Your task to perform on an android device: turn pop-ups off in chrome Image 0: 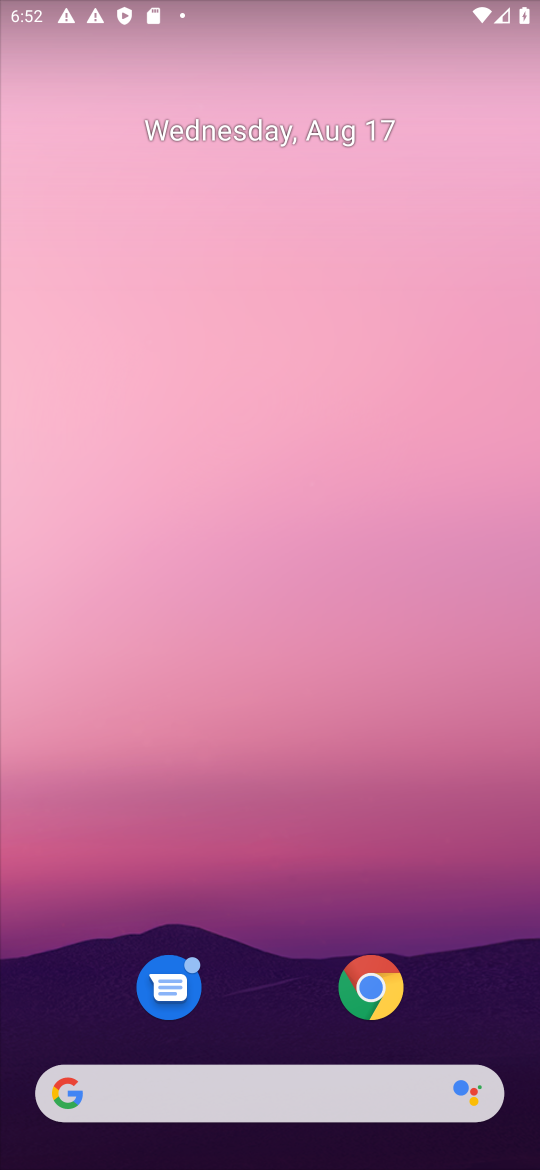
Step 0: drag from (250, 988) to (167, 3)
Your task to perform on an android device: turn pop-ups off in chrome Image 1: 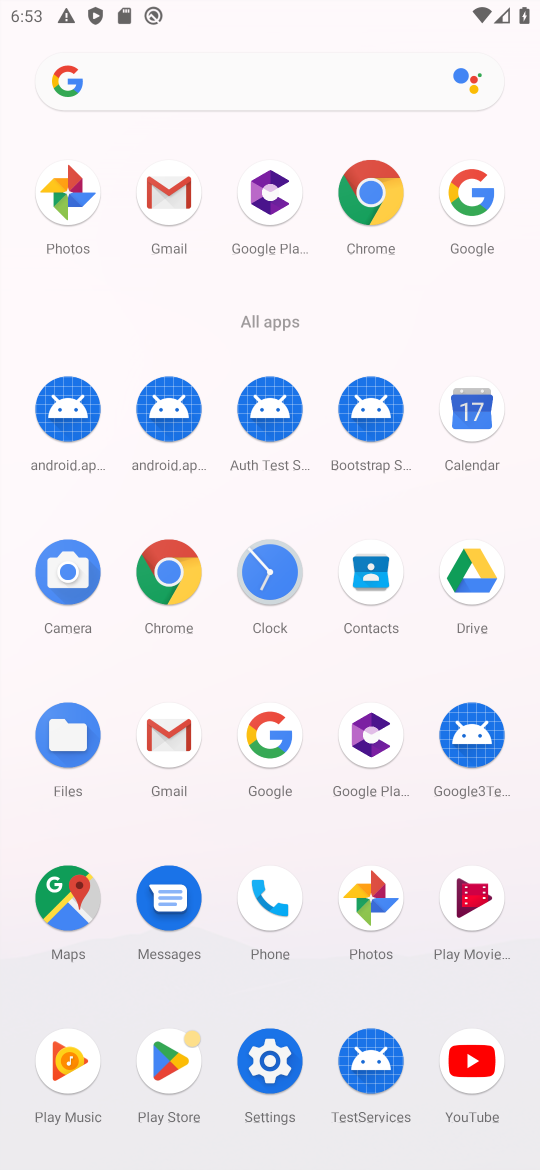
Step 1: click (167, 590)
Your task to perform on an android device: turn pop-ups off in chrome Image 2: 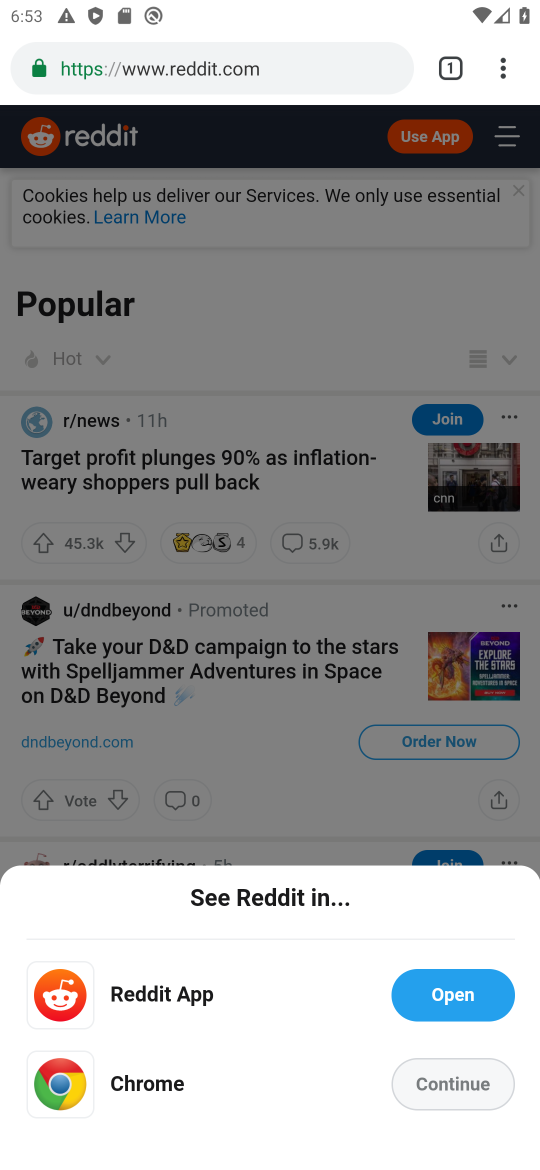
Step 2: click (495, 67)
Your task to perform on an android device: turn pop-ups off in chrome Image 3: 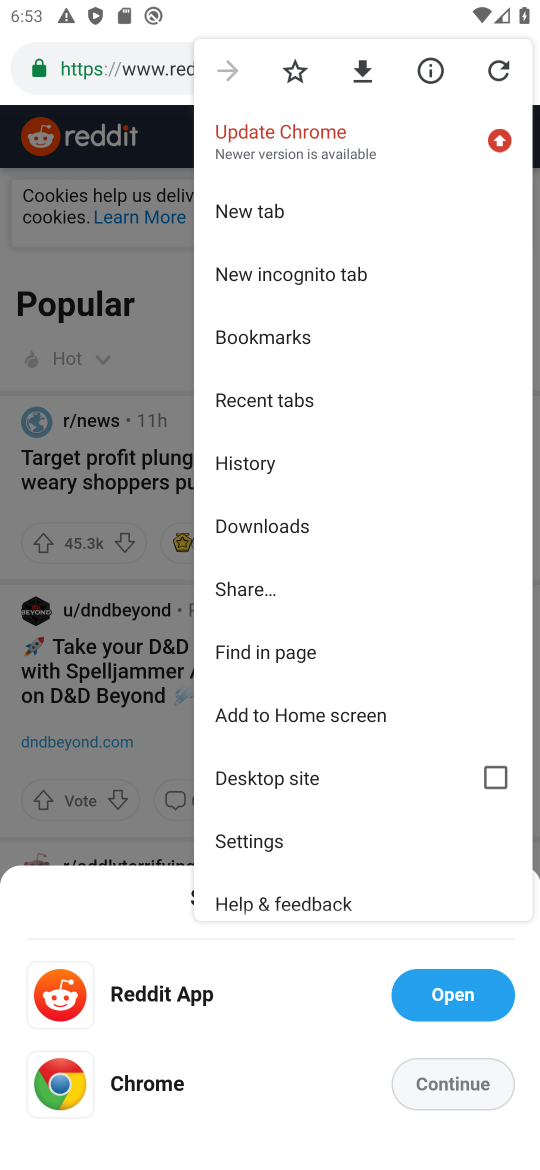
Step 3: click (273, 840)
Your task to perform on an android device: turn pop-ups off in chrome Image 4: 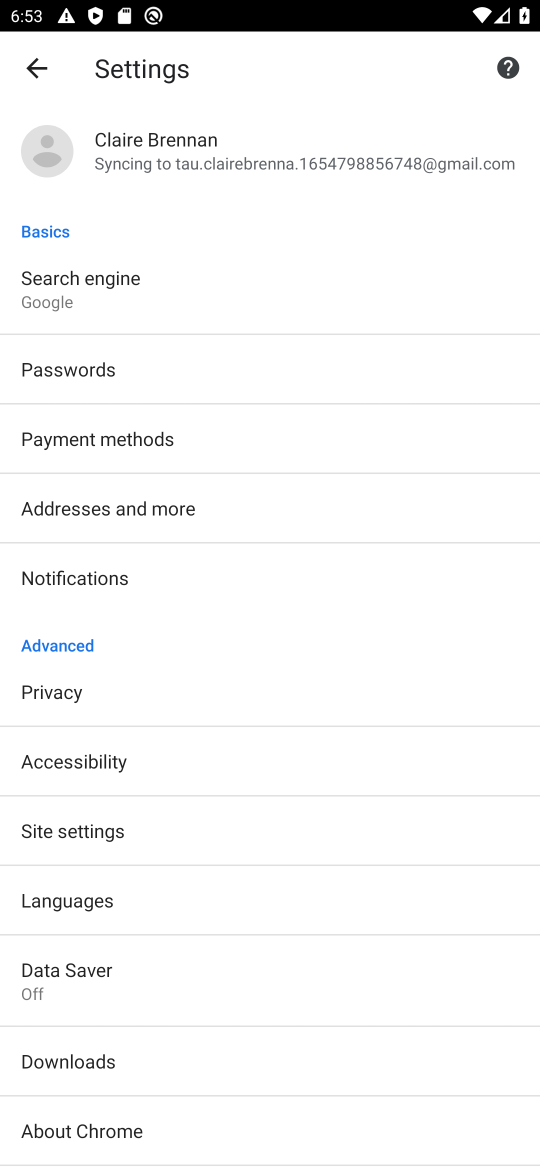
Step 4: click (52, 840)
Your task to perform on an android device: turn pop-ups off in chrome Image 5: 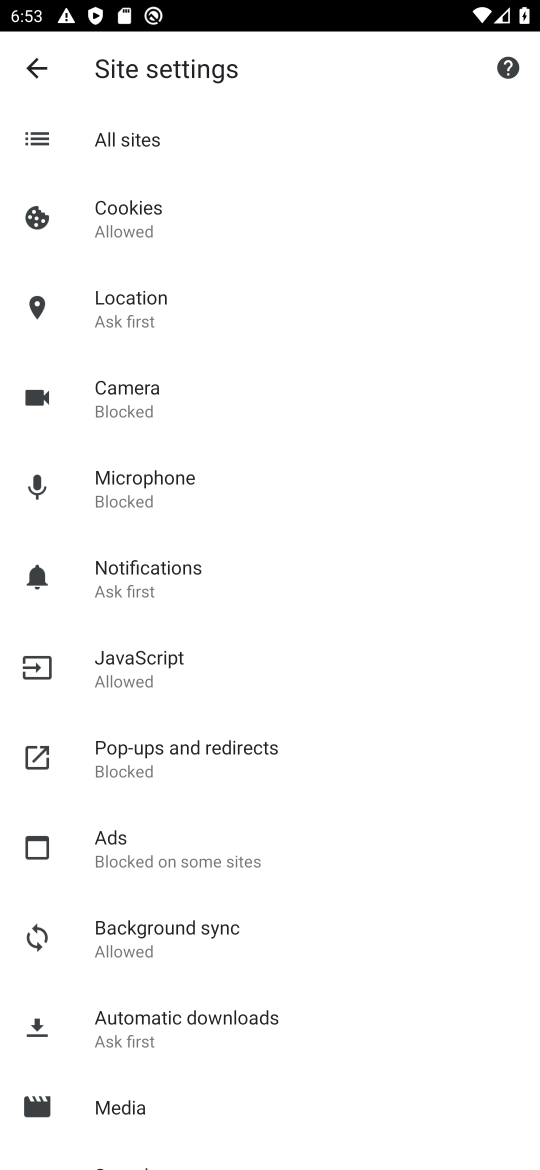
Step 5: click (256, 790)
Your task to perform on an android device: turn pop-ups off in chrome Image 6: 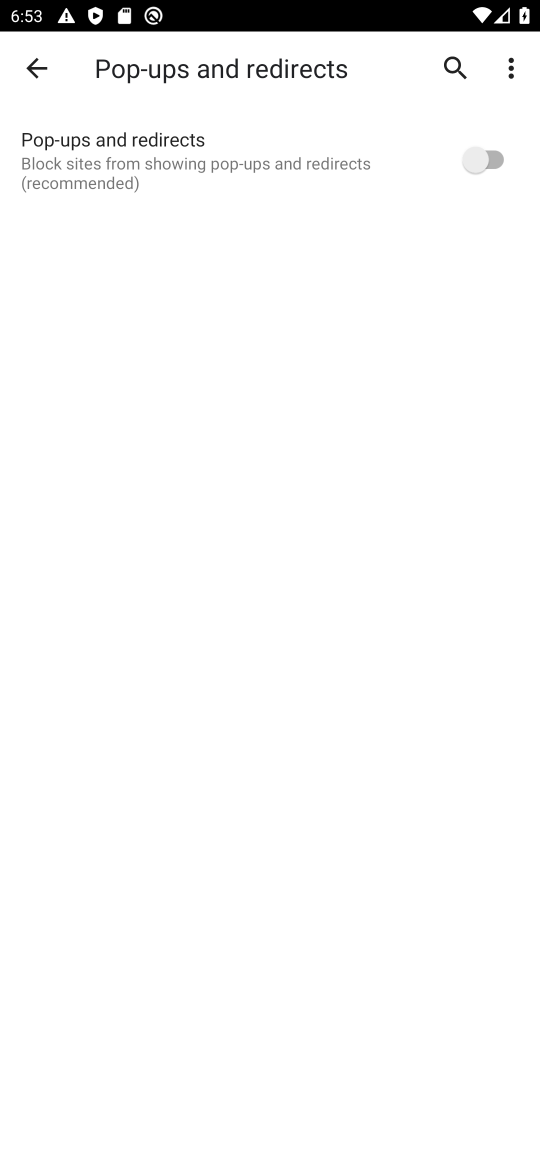
Step 6: task complete